Your task to perform on an android device: Show me some nice wallpapers for my computer Image 0: 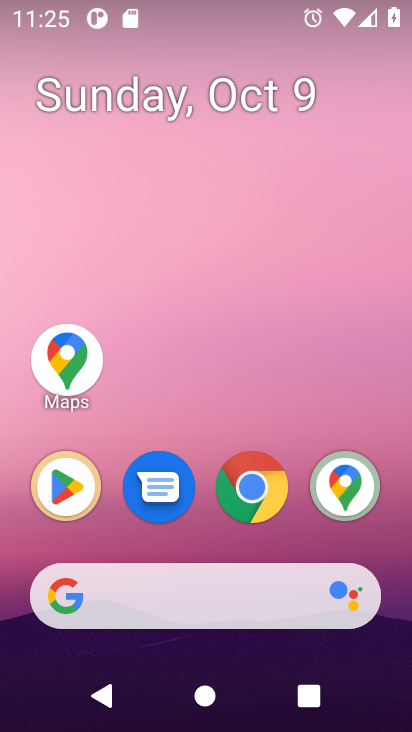
Step 0: drag from (217, 561) to (238, 92)
Your task to perform on an android device: Show me some nice wallpapers for my computer Image 1: 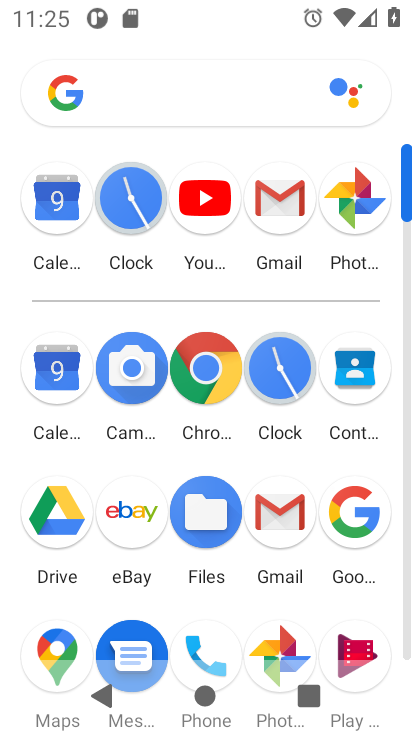
Step 1: click (200, 368)
Your task to perform on an android device: Show me some nice wallpapers for my computer Image 2: 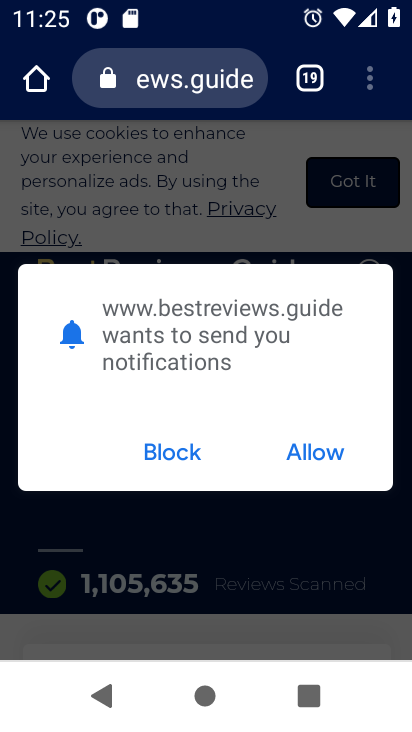
Step 2: drag from (371, 84) to (387, 414)
Your task to perform on an android device: Show me some nice wallpapers for my computer Image 3: 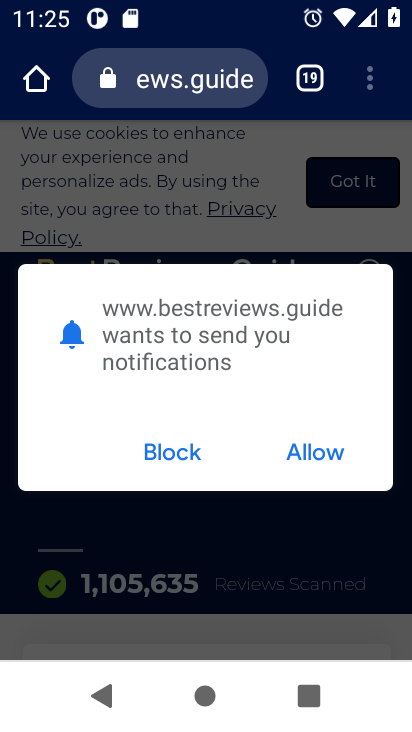
Step 3: click (169, 458)
Your task to perform on an android device: Show me some nice wallpapers for my computer Image 4: 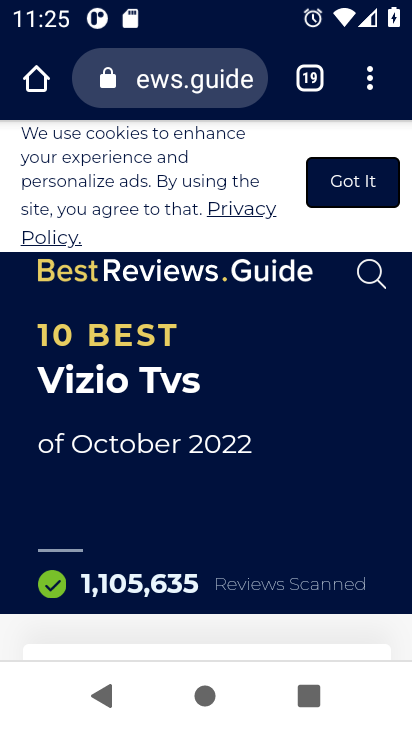
Step 4: drag from (370, 87) to (87, 158)
Your task to perform on an android device: Show me some nice wallpapers for my computer Image 5: 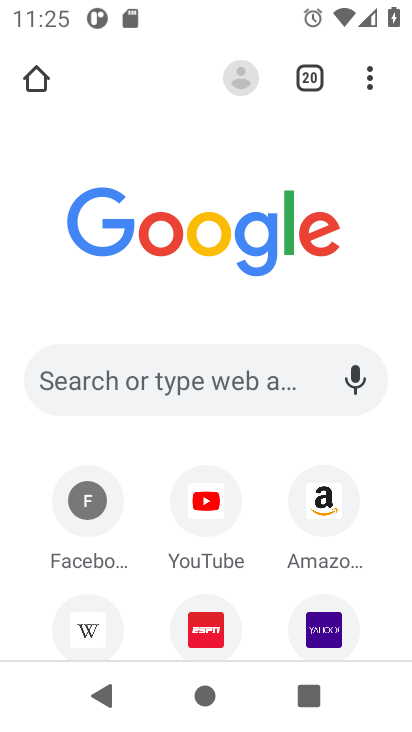
Step 5: click (146, 384)
Your task to perform on an android device: Show me some nice wallpapers for my computer Image 6: 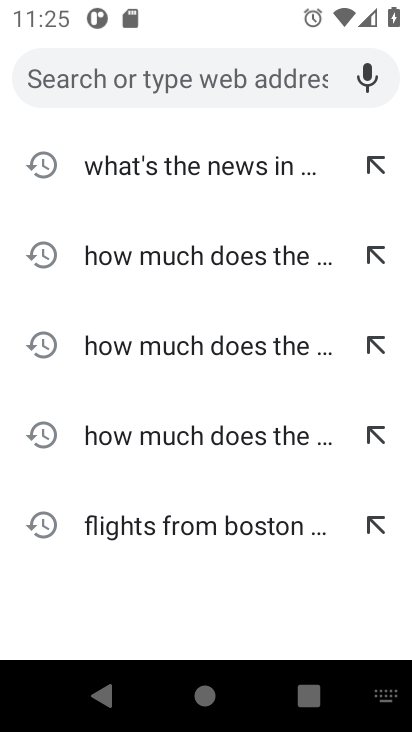
Step 6: type "Show me some nice wallpapers for my computer"
Your task to perform on an android device: Show me some nice wallpapers for my computer Image 7: 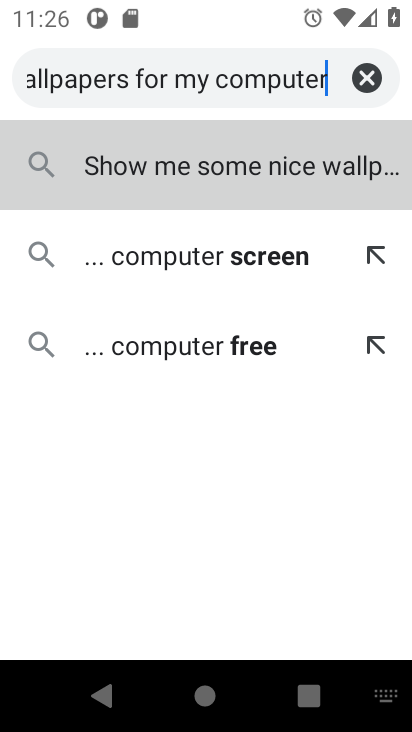
Step 7: type ""
Your task to perform on an android device: Show me some nice wallpapers for my computer Image 8: 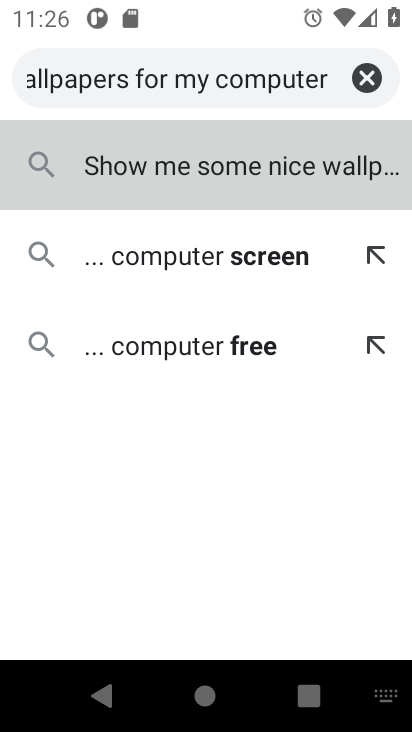
Step 8: click (283, 155)
Your task to perform on an android device: Show me some nice wallpapers for my computer Image 9: 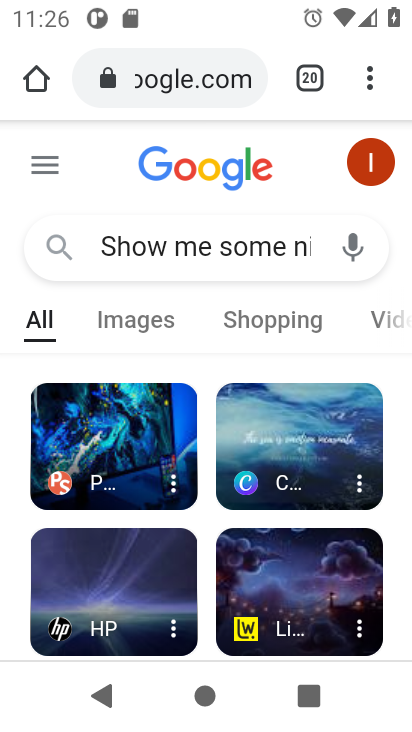
Step 9: task complete